Your task to perform on an android device: refresh tabs in the chrome app Image 0: 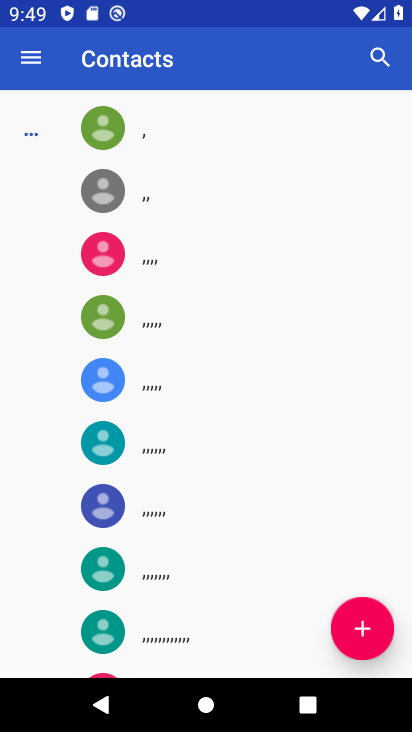
Step 0: press home button
Your task to perform on an android device: refresh tabs in the chrome app Image 1: 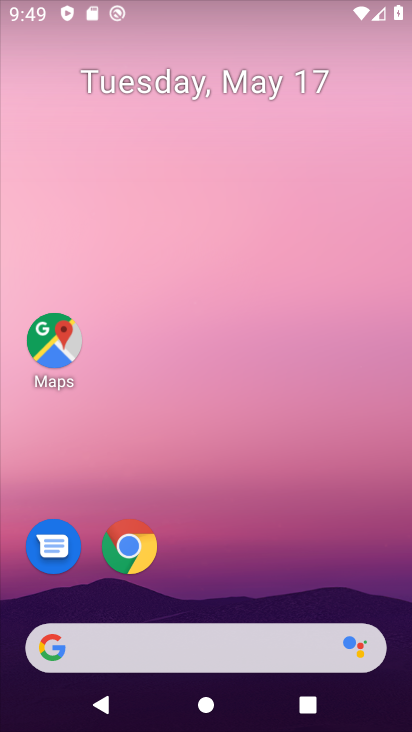
Step 1: drag from (218, 622) to (195, 252)
Your task to perform on an android device: refresh tabs in the chrome app Image 2: 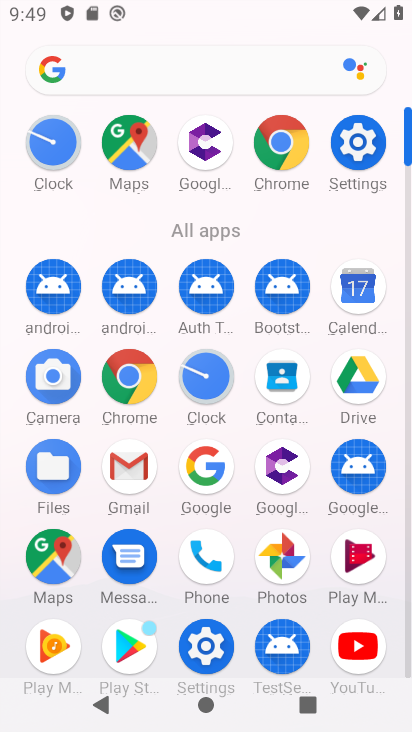
Step 2: click (282, 141)
Your task to perform on an android device: refresh tabs in the chrome app Image 3: 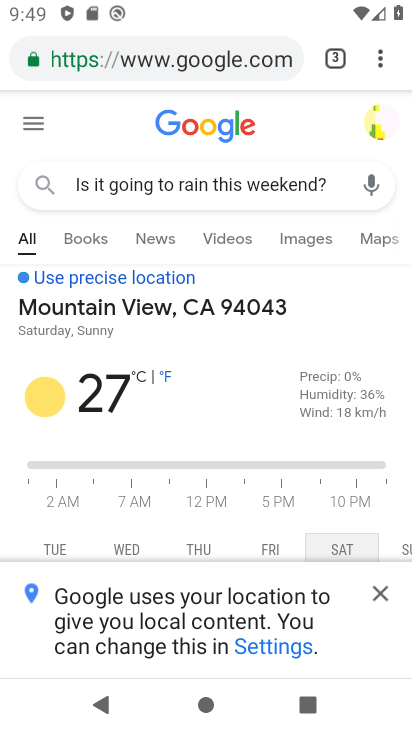
Step 3: click (383, 53)
Your task to perform on an android device: refresh tabs in the chrome app Image 4: 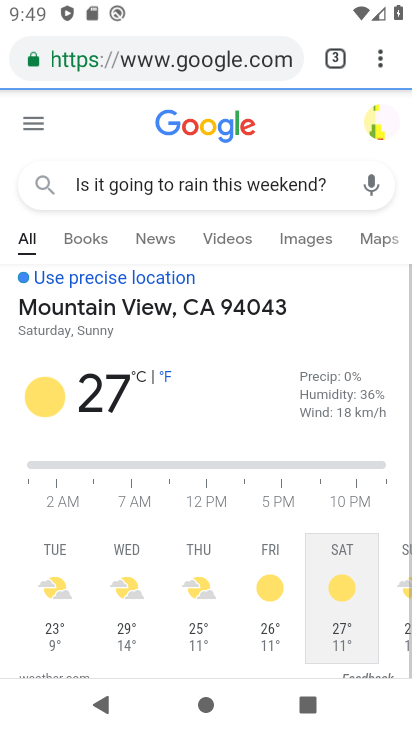
Step 4: click (373, 54)
Your task to perform on an android device: refresh tabs in the chrome app Image 5: 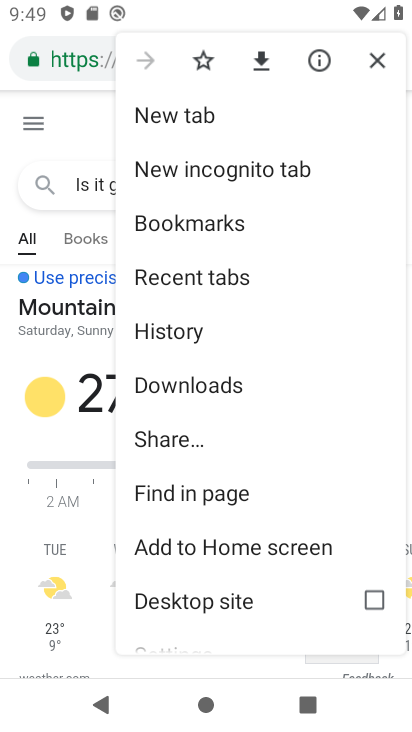
Step 5: click (207, 118)
Your task to perform on an android device: refresh tabs in the chrome app Image 6: 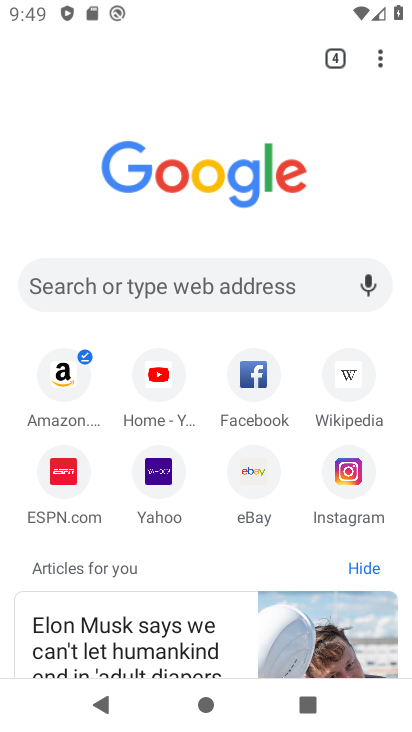
Step 6: click (369, 61)
Your task to perform on an android device: refresh tabs in the chrome app Image 7: 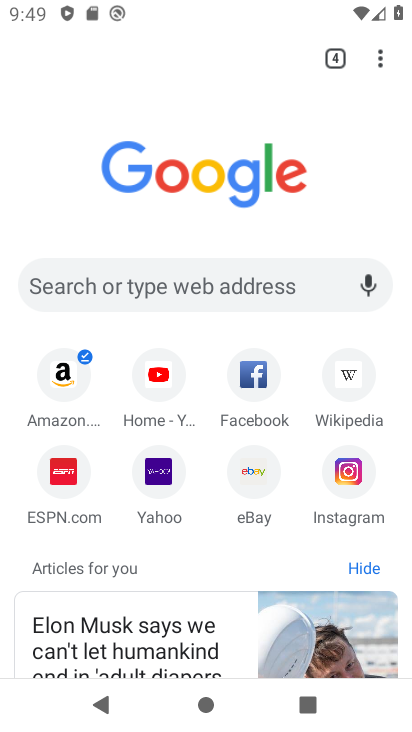
Step 7: click (363, 66)
Your task to perform on an android device: refresh tabs in the chrome app Image 8: 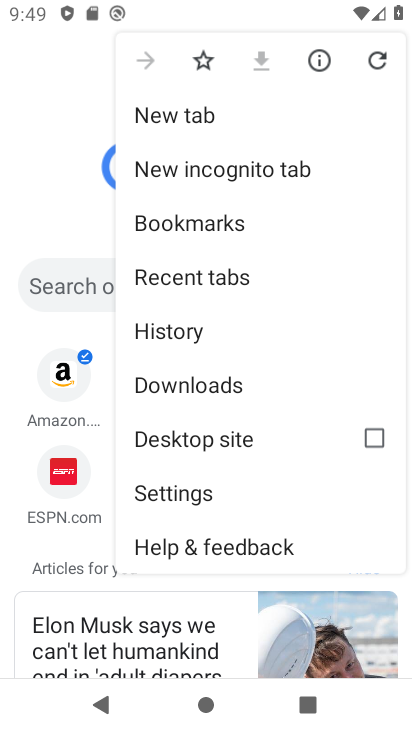
Step 8: click (381, 50)
Your task to perform on an android device: refresh tabs in the chrome app Image 9: 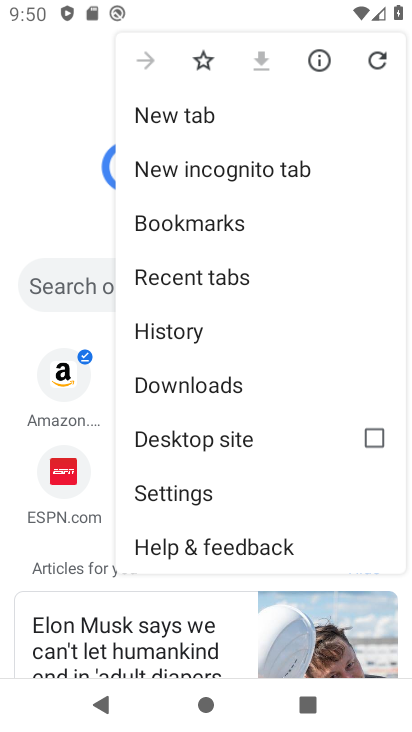
Step 9: click (381, 50)
Your task to perform on an android device: refresh tabs in the chrome app Image 10: 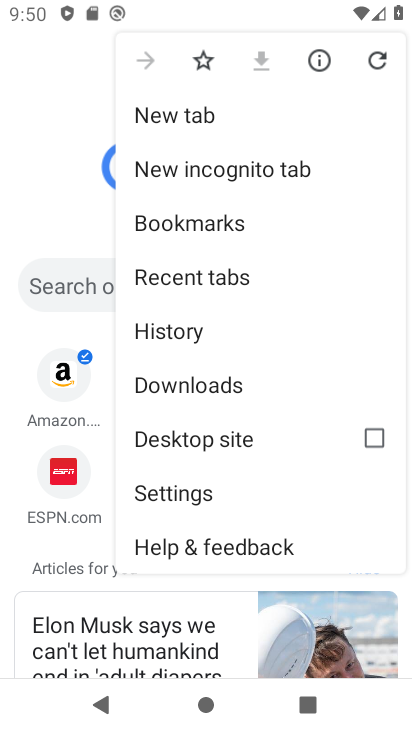
Step 10: task complete